Your task to perform on an android device: What's the weather going to be tomorrow? Image 0: 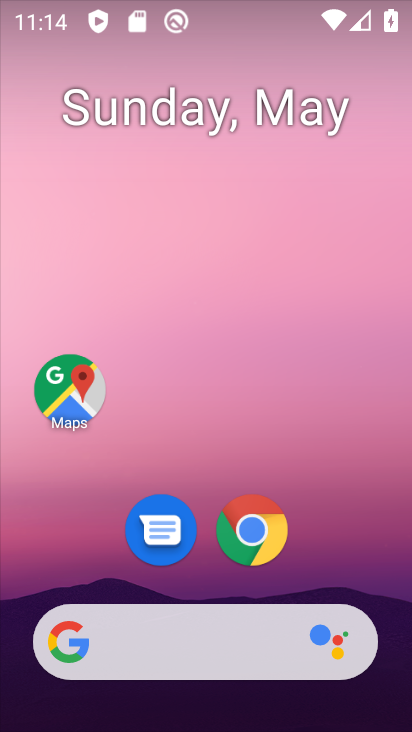
Step 0: click (189, 637)
Your task to perform on an android device: What's the weather going to be tomorrow? Image 1: 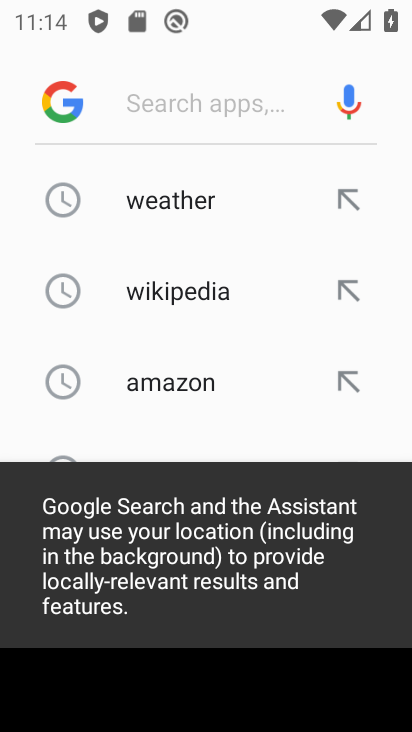
Step 1: click (143, 199)
Your task to perform on an android device: What's the weather going to be tomorrow? Image 2: 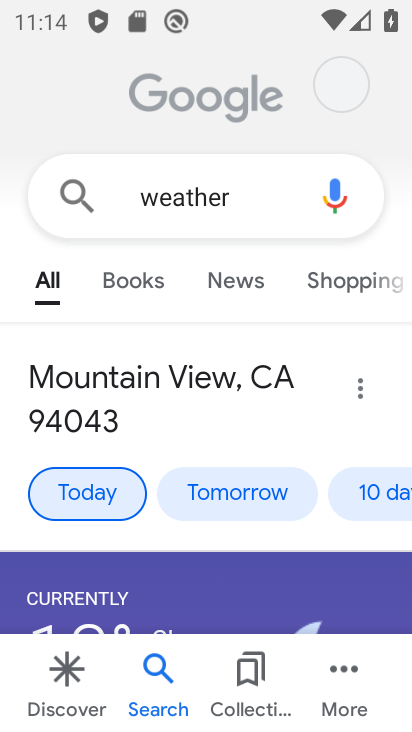
Step 2: click (231, 490)
Your task to perform on an android device: What's the weather going to be tomorrow? Image 3: 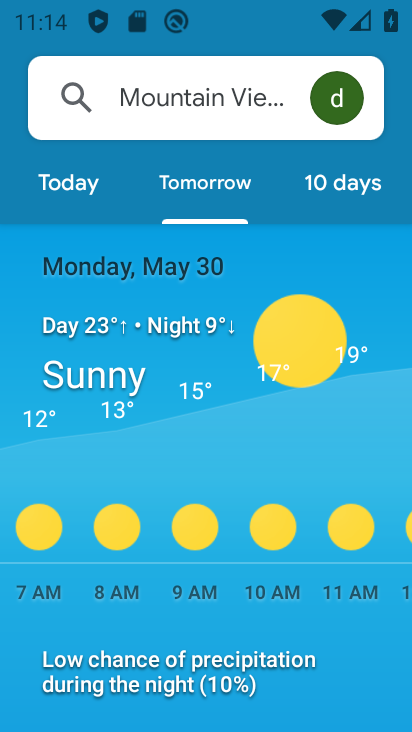
Step 3: task complete